Your task to perform on an android device: Turn off the flashlight Image 0: 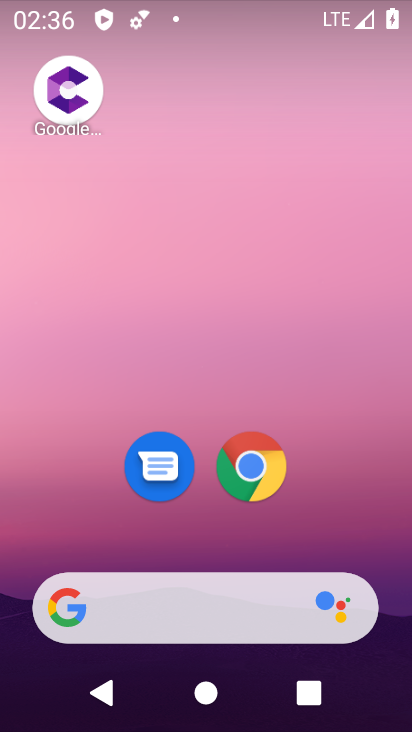
Step 0: drag from (219, 538) to (218, 25)
Your task to perform on an android device: Turn off the flashlight Image 1: 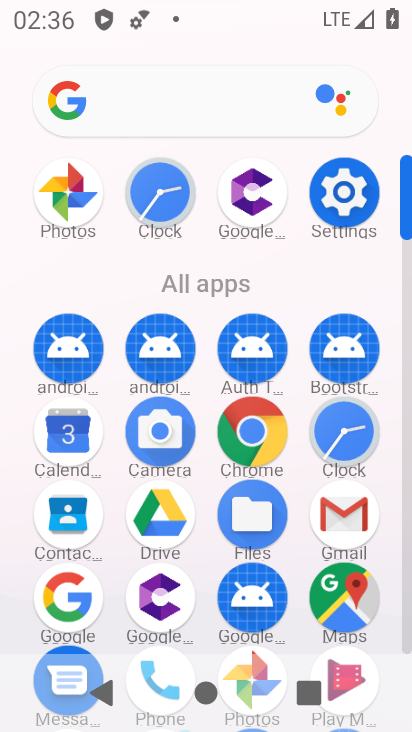
Step 1: click (336, 194)
Your task to perform on an android device: Turn off the flashlight Image 2: 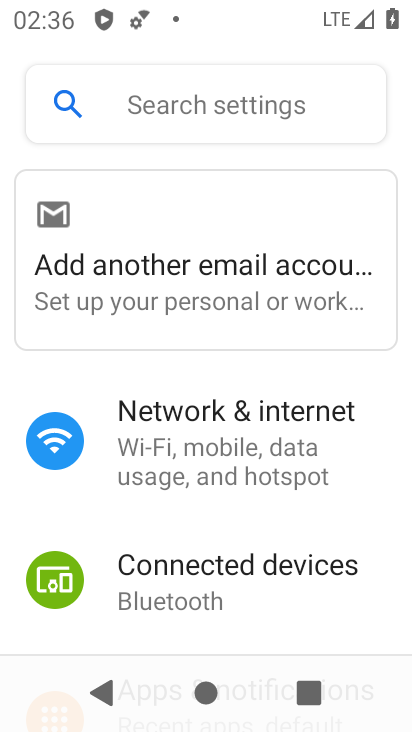
Step 2: task complete